Your task to perform on an android device: Is it going to rain tomorrow? Image 0: 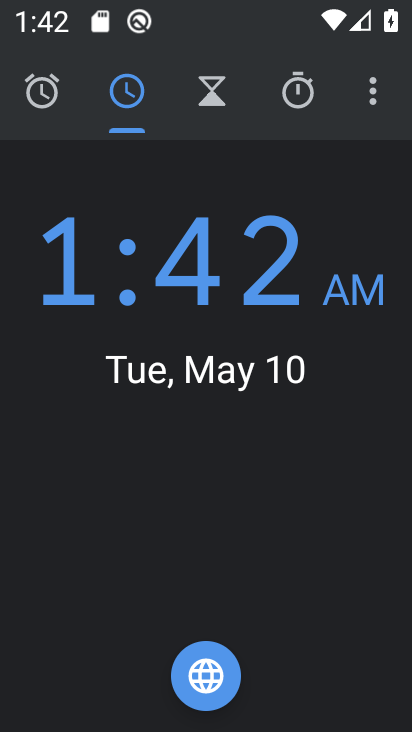
Step 0: press back button
Your task to perform on an android device: Is it going to rain tomorrow? Image 1: 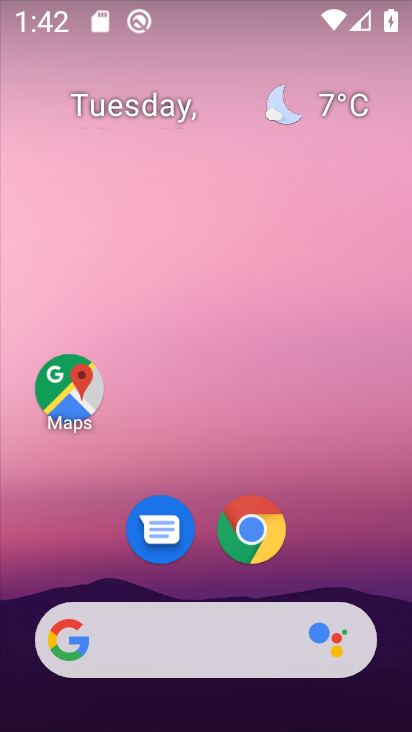
Step 1: click (254, 532)
Your task to perform on an android device: Is it going to rain tomorrow? Image 2: 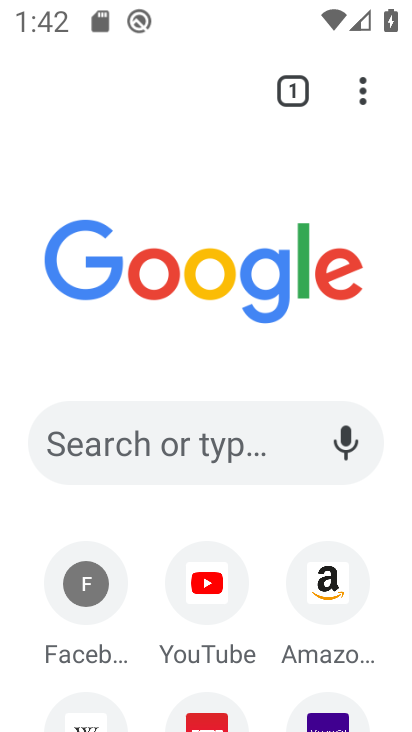
Step 2: click (205, 457)
Your task to perform on an android device: Is it going to rain tomorrow? Image 3: 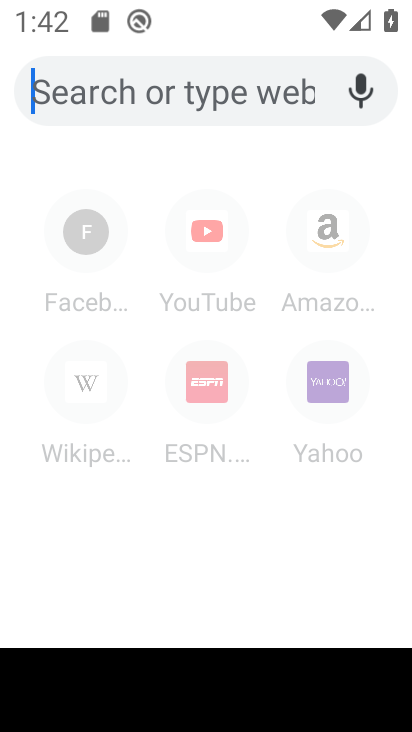
Step 3: type "Is it going to rain tomorrow?"
Your task to perform on an android device: Is it going to rain tomorrow? Image 4: 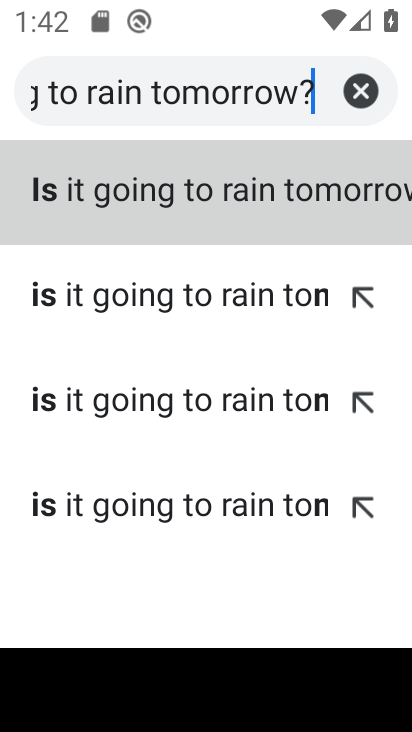
Step 4: click (152, 195)
Your task to perform on an android device: Is it going to rain tomorrow? Image 5: 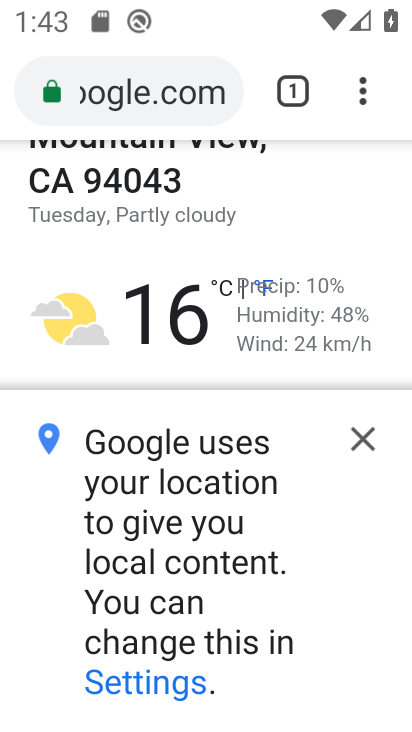
Step 5: click (360, 439)
Your task to perform on an android device: Is it going to rain tomorrow? Image 6: 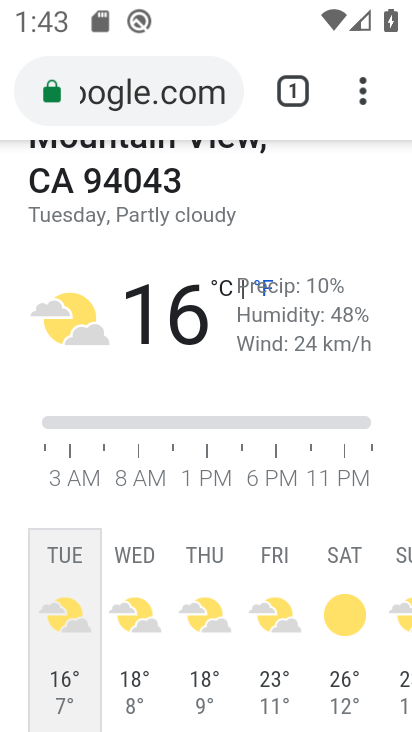
Step 6: task complete